Your task to perform on an android device: check google app version Image 0: 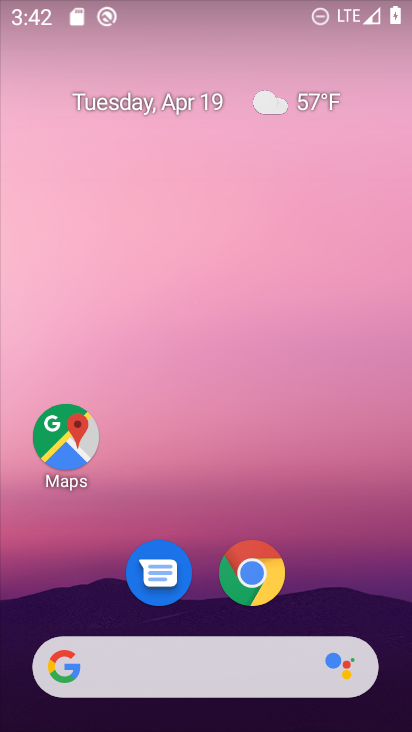
Step 0: drag from (341, 299) to (351, 21)
Your task to perform on an android device: check google app version Image 1: 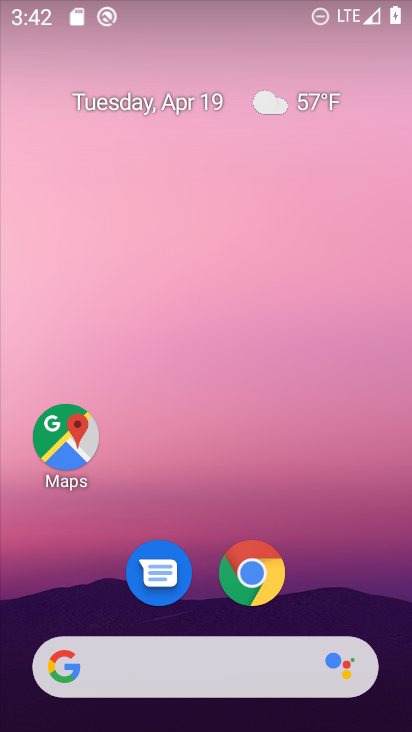
Step 1: drag from (339, 576) to (323, 6)
Your task to perform on an android device: check google app version Image 2: 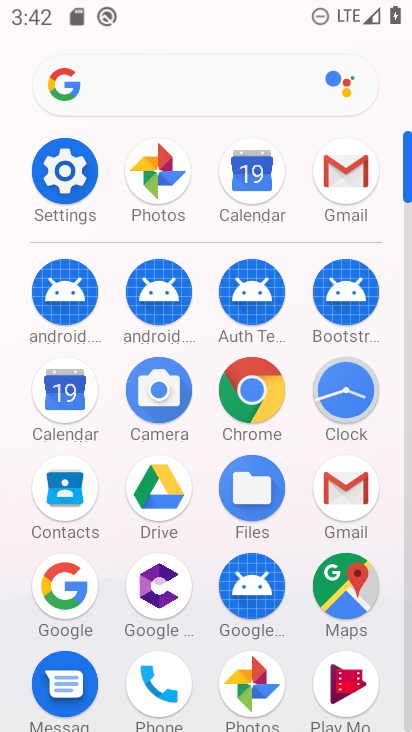
Step 2: click (69, 596)
Your task to perform on an android device: check google app version Image 3: 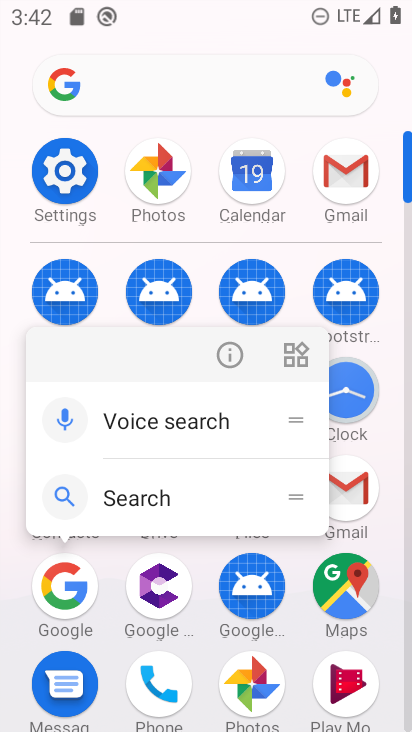
Step 3: click (232, 361)
Your task to perform on an android device: check google app version Image 4: 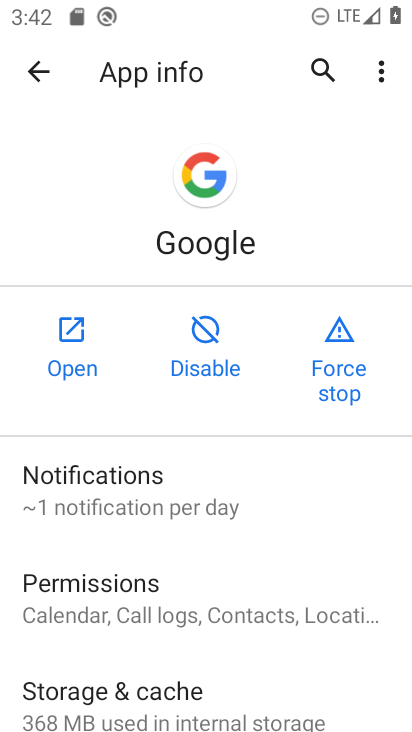
Step 4: drag from (237, 574) to (212, 143)
Your task to perform on an android device: check google app version Image 5: 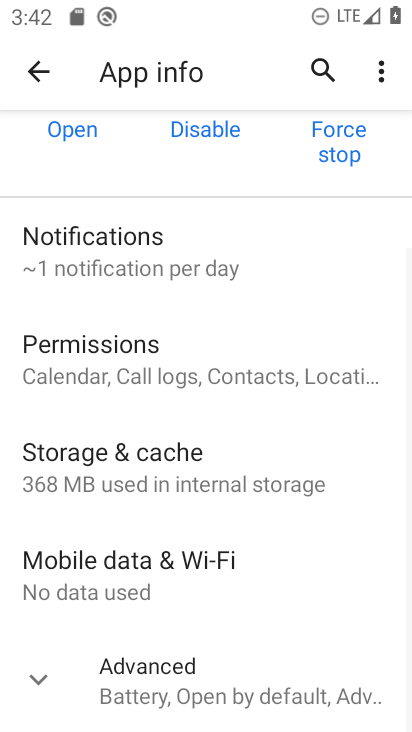
Step 5: drag from (264, 548) to (256, 239)
Your task to perform on an android device: check google app version Image 6: 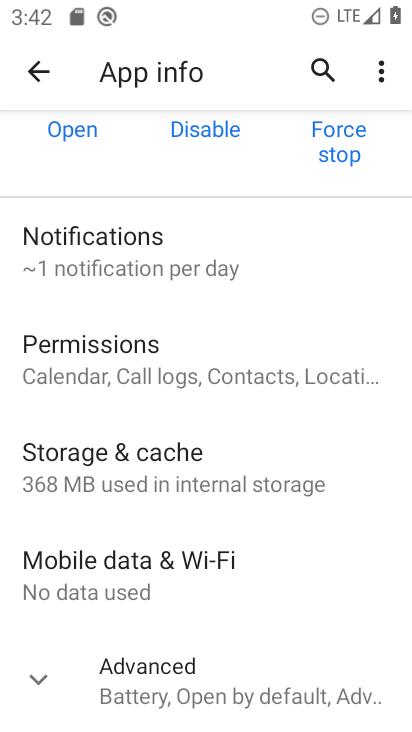
Step 6: click (40, 691)
Your task to perform on an android device: check google app version Image 7: 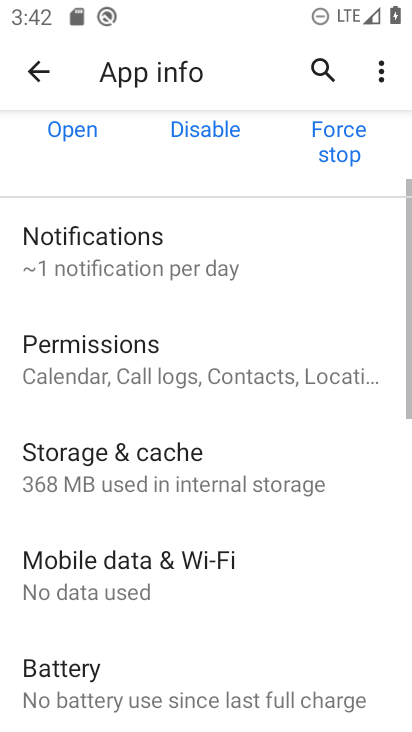
Step 7: task complete